Your task to perform on an android device: toggle priority inbox in the gmail app Image 0: 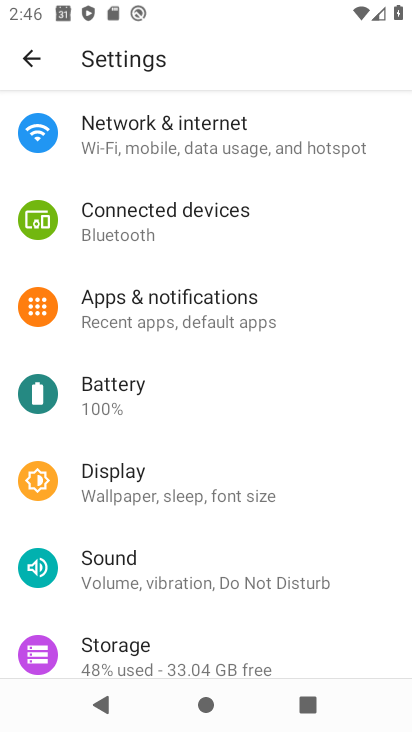
Step 0: press home button
Your task to perform on an android device: toggle priority inbox in the gmail app Image 1: 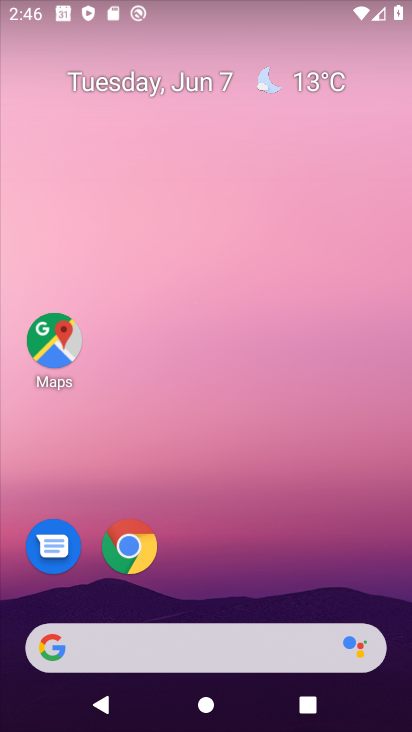
Step 1: drag from (200, 570) to (234, 172)
Your task to perform on an android device: toggle priority inbox in the gmail app Image 2: 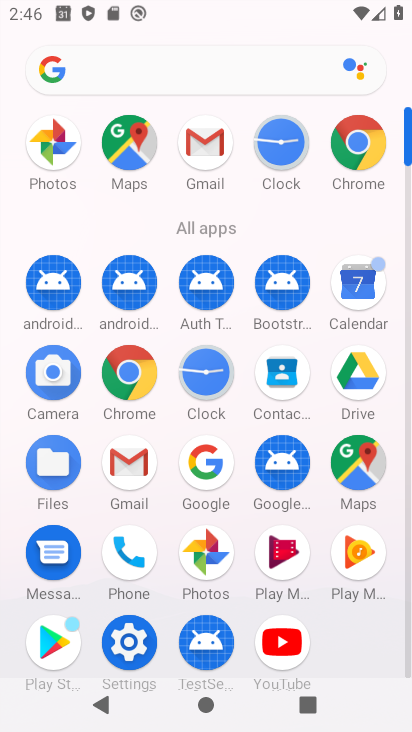
Step 2: click (210, 159)
Your task to perform on an android device: toggle priority inbox in the gmail app Image 3: 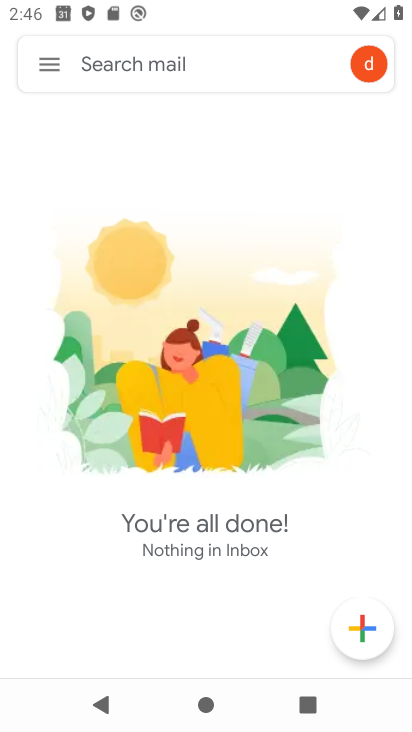
Step 3: click (45, 76)
Your task to perform on an android device: toggle priority inbox in the gmail app Image 4: 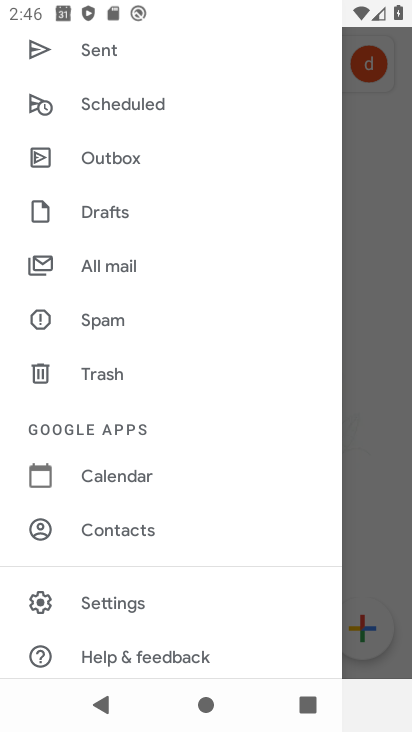
Step 4: click (111, 606)
Your task to perform on an android device: toggle priority inbox in the gmail app Image 5: 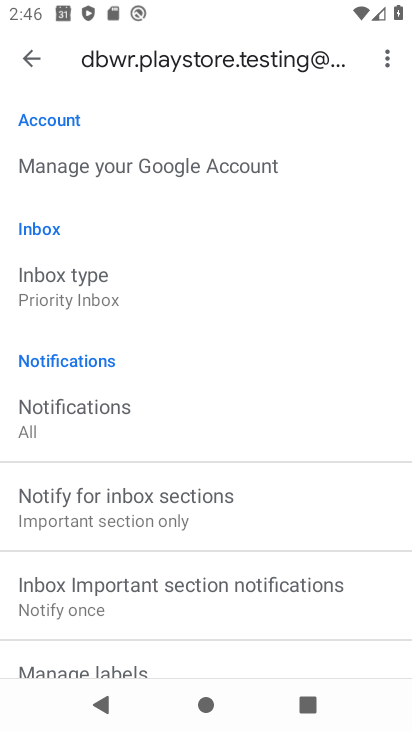
Step 5: click (64, 307)
Your task to perform on an android device: toggle priority inbox in the gmail app Image 6: 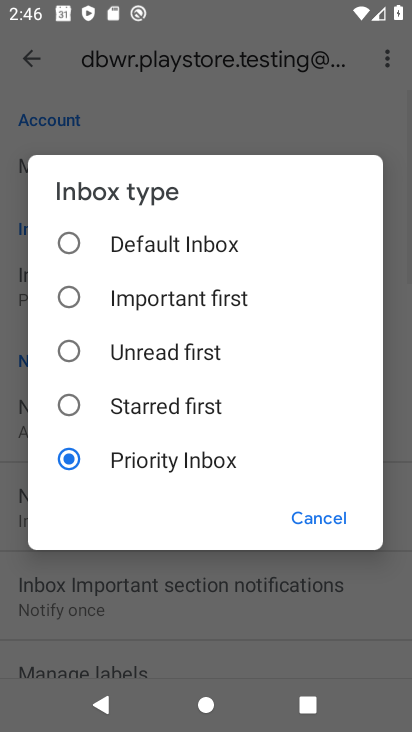
Step 6: click (142, 260)
Your task to perform on an android device: toggle priority inbox in the gmail app Image 7: 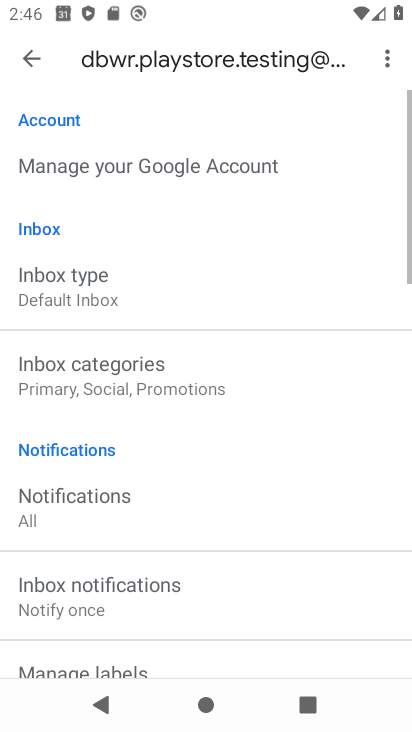
Step 7: task complete